Your task to perform on an android device: turn off translation in the chrome app Image 0: 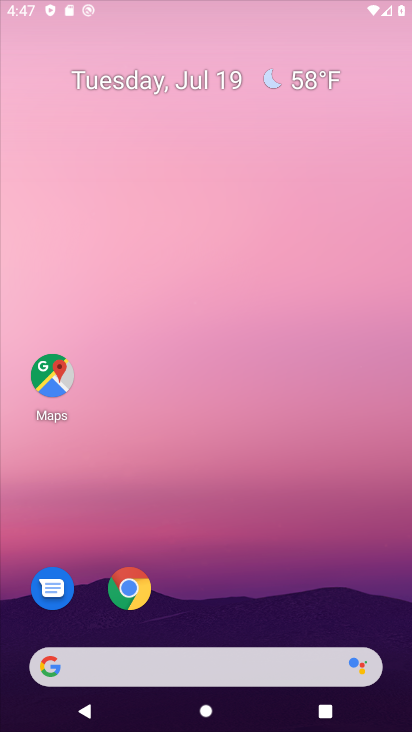
Step 0: drag from (269, 612) to (211, 27)
Your task to perform on an android device: turn off translation in the chrome app Image 1: 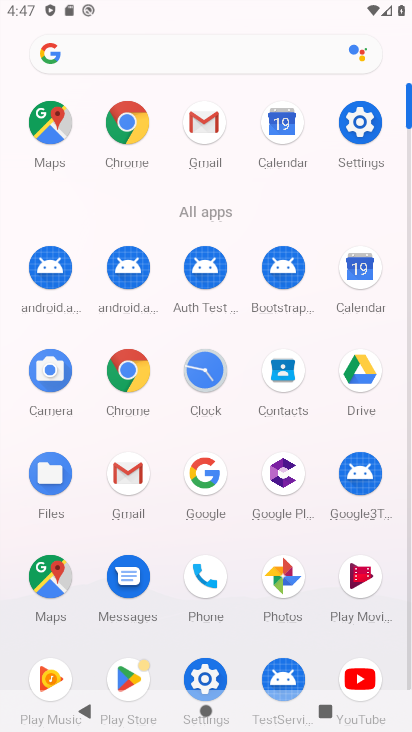
Step 1: click (135, 116)
Your task to perform on an android device: turn off translation in the chrome app Image 2: 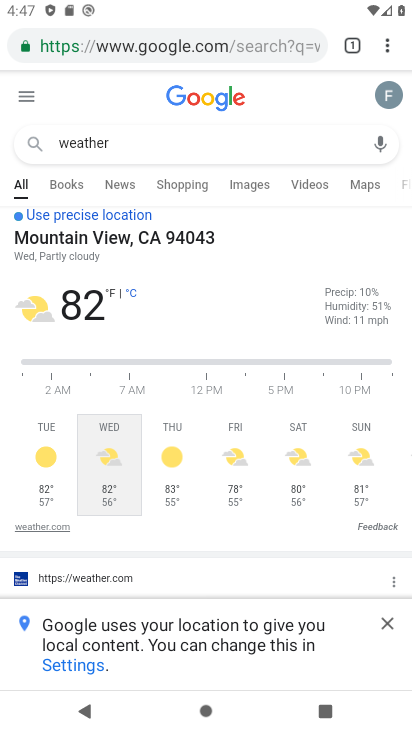
Step 2: drag from (391, 40) to (223, 560)
Your task to perform on an android device: turn off translation in the chrome app Image 3: 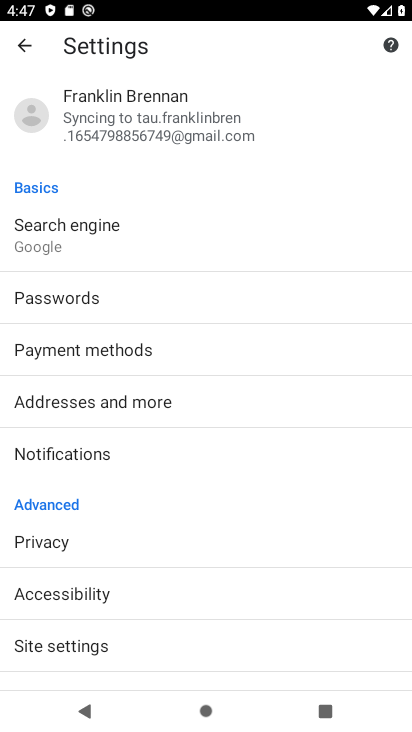
Step 3: drag from (280, 652) to (299, 181)
Your task to perform on an android device: turn off translation in the chrome app Image 4: 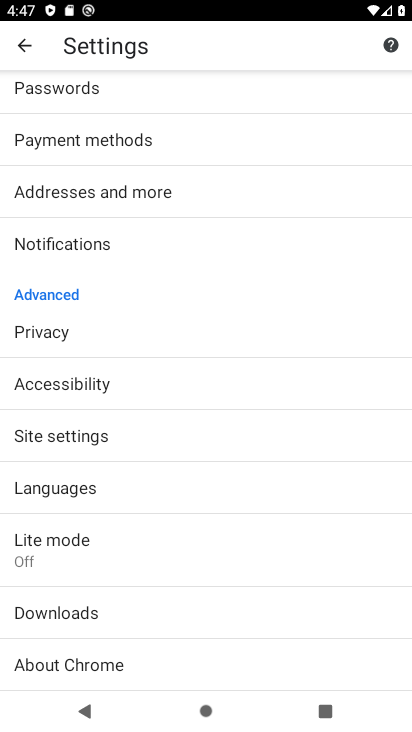
Step 4: click (66, 492)
Your task to perform on an android device: turn off translation in the chrome app Image 5: 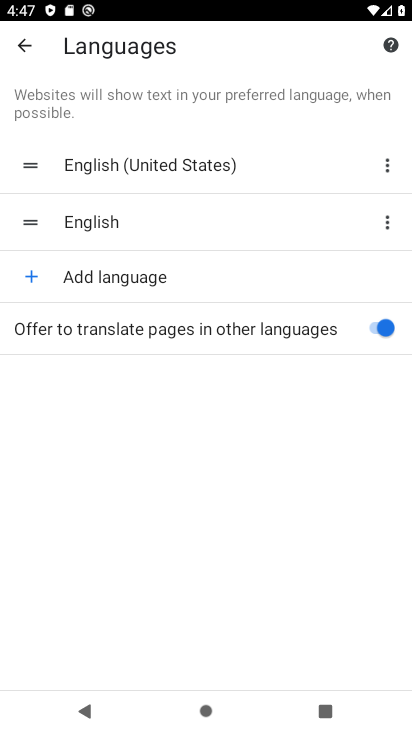
Step 5: click (383, 323)
Your task to perform on an android device: turn off translation in the chrome app Image 6: 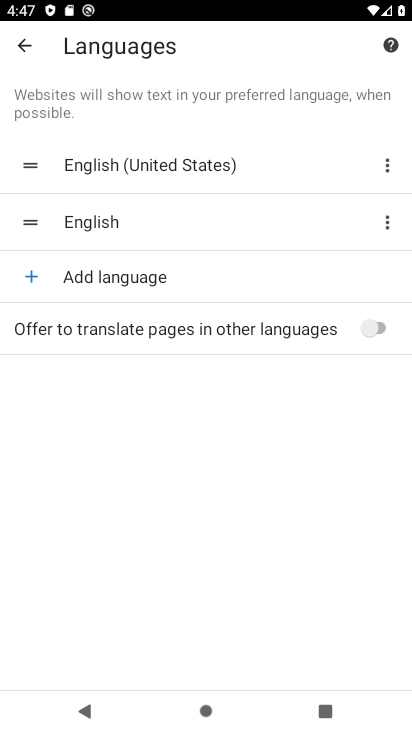
Step 6: task complete